Your task to perform on an android device: turn off data saver in the chrome app Image 0: 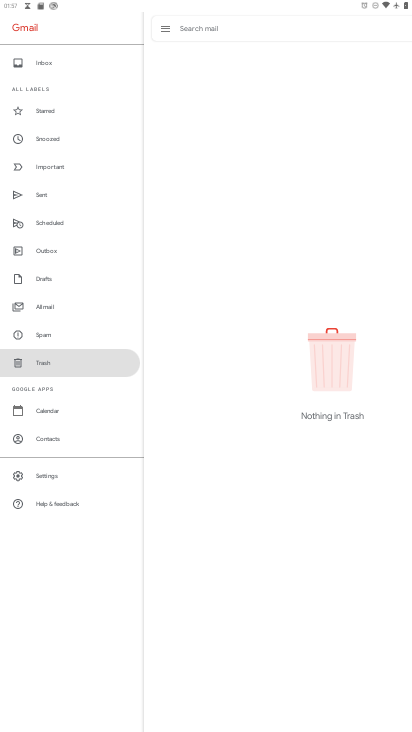
Step 0: press home button
Your task to perform on an android device: turn off data saver in the chrome app Image 1: 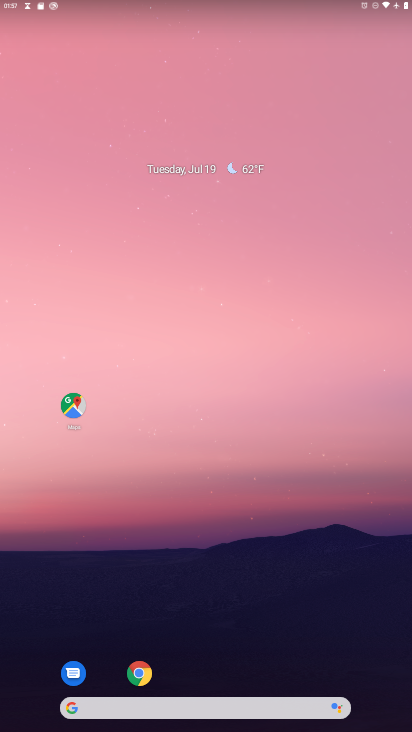
Step 1: drag from (257, 648) to (273, 195)
Your task to perform on an android device: turn off data saver in the chrome app Image 2: 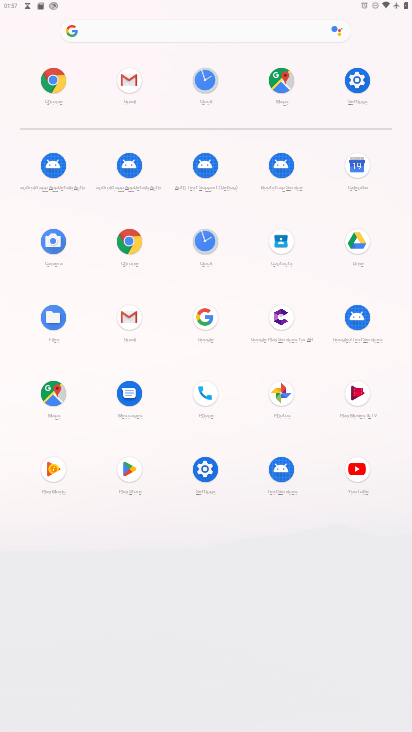
Step 2: click (130, 234)
Your task to perform on an android device: turn off data saver in the chrome app Image 3: 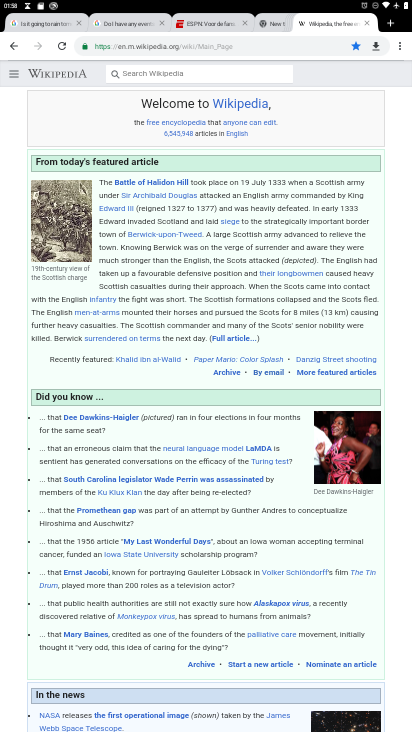
Step 3: click (407, 38)
Your task to perform on an android device: turn off data saver in the chrome app Image 4: 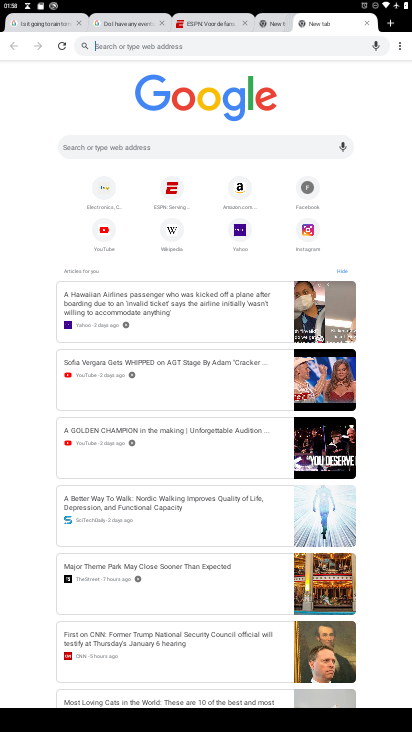
Step 4: click (401, 44)
Your task to perform on an android device: turn off data saver in the chrome app Image 5: 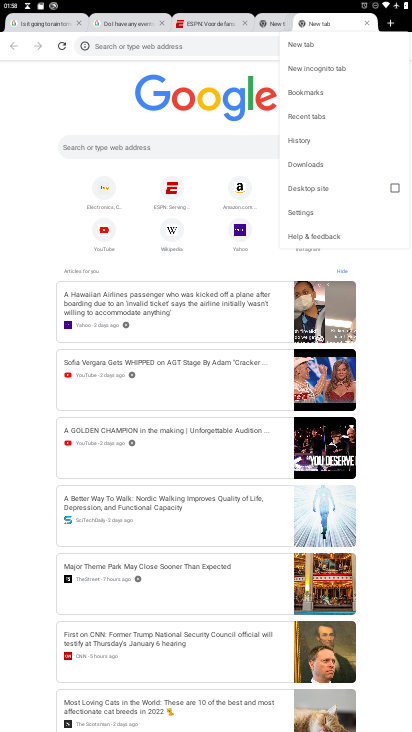
Step 5: click (314, 204)
Your task to perform on an android device: turn off data saver in the chrome app Image 6: 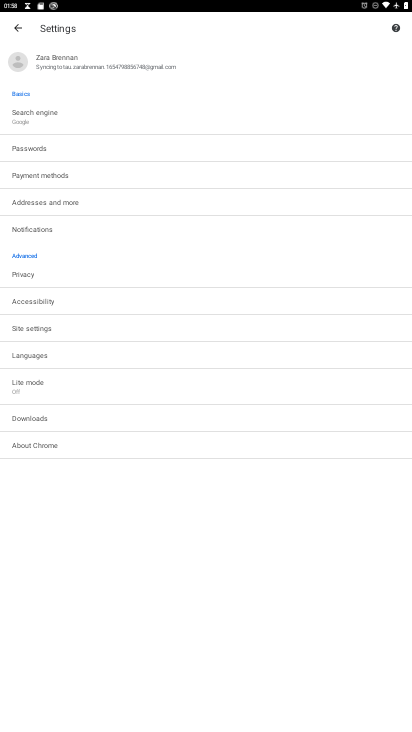
Step 6: click (92, 373)
Your task to perform on an android device: turn off data saver in the chrome app Image 7: 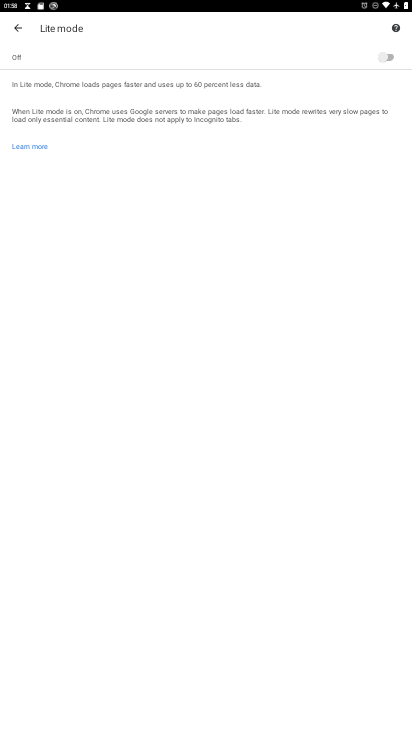
Step 7: task complete